Your task to perform on an android device: Go to Reddit.com Image 0: 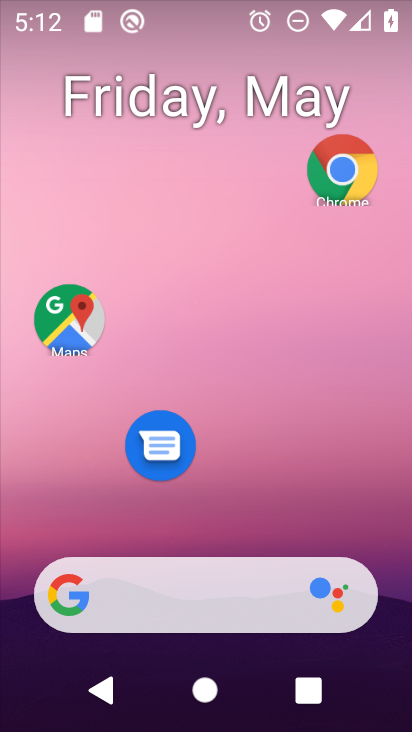
Step 0: click (341, 180)
Your task to perform on an android device: Go to Reddit.com Image 1: 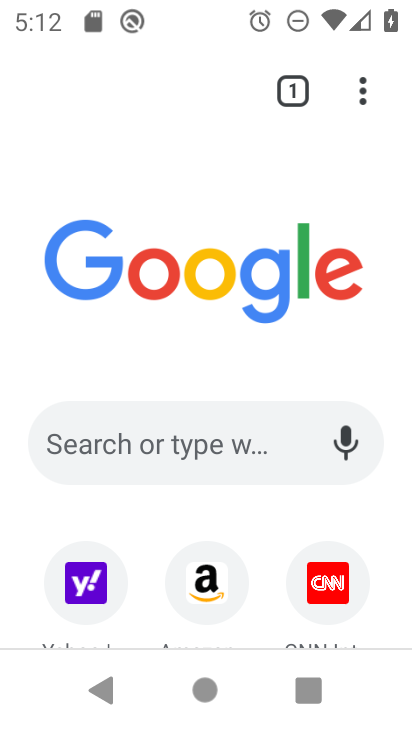
Step 1: drag from (253, 580) to (246, 335)
Your task to perform on an android device: Go to Reddit.com Image 2: 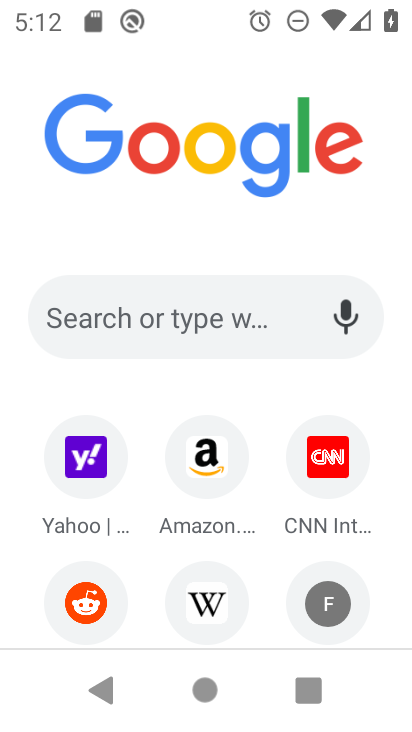
Step 2: click (88, 614)
Your task to perform on an android device: Go to Reddit.com Image 3: 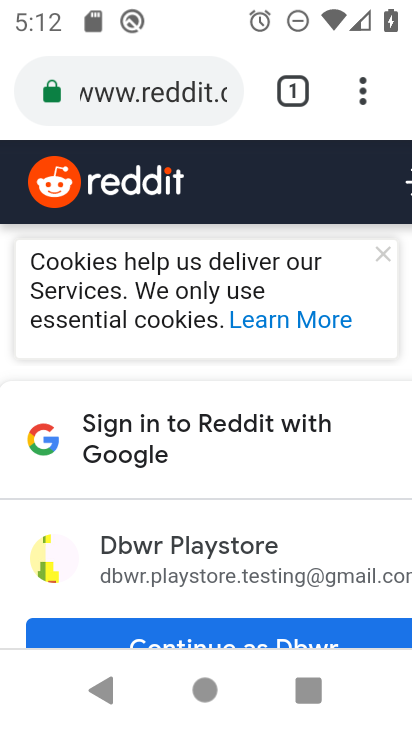
Step 3: task complete